Your task to perform on an android device: turn vacation reply on in the gmail app Image 0: 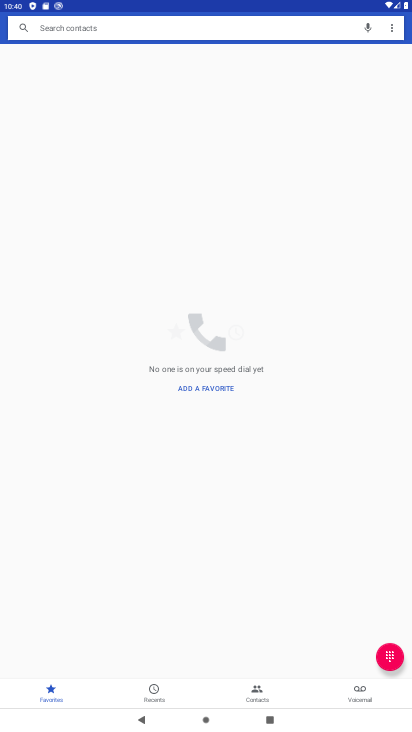
Step 0: drag from (250, 602) to (197, 107)
Your task to perform on an android device: turn vacation reply on in the gmail app Image 1: 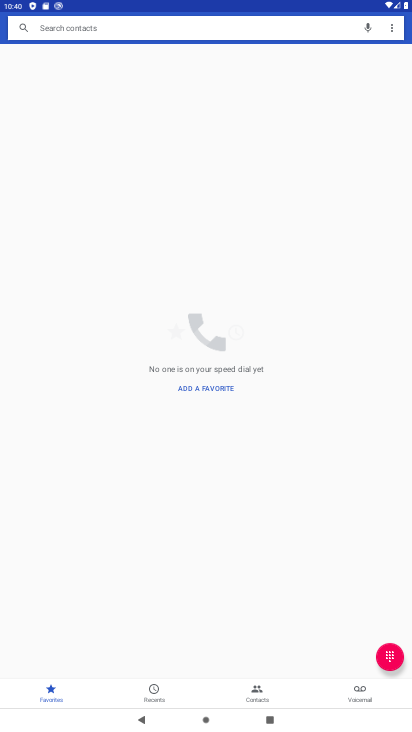
Step 1: press home button
Your task to perform on an android device: turn vacation reply on in the gmail app Image 2: 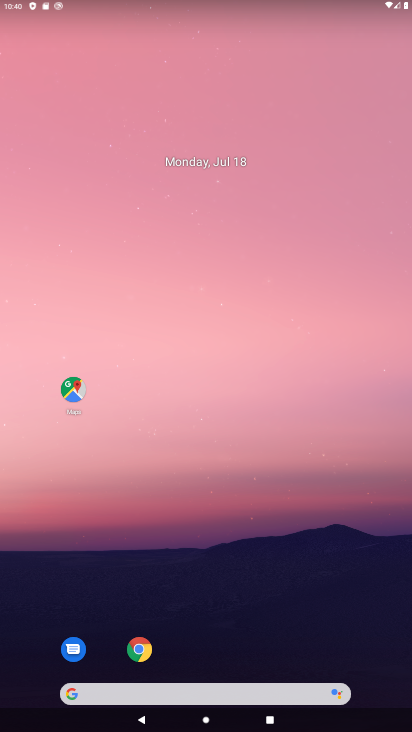
Step 2: drag from (268, 572) to (116, 33)
Your task to perform on an android device: turn vacation reply on in the gmail app Image 3: 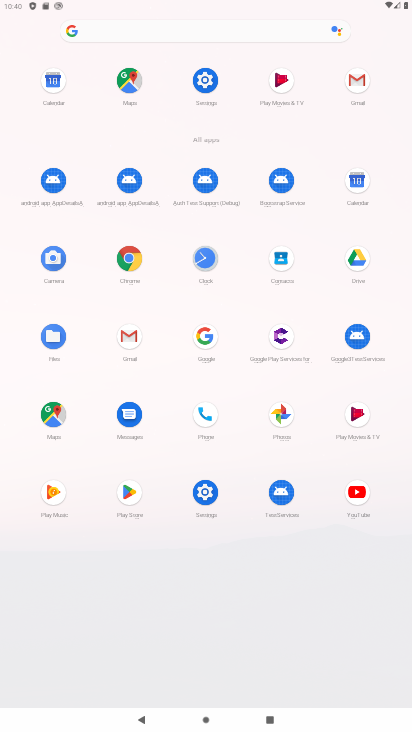
Step 3: click (353, 79)
Your task to perform on an android device: turn vacation reply on in the gmail app Image 4: 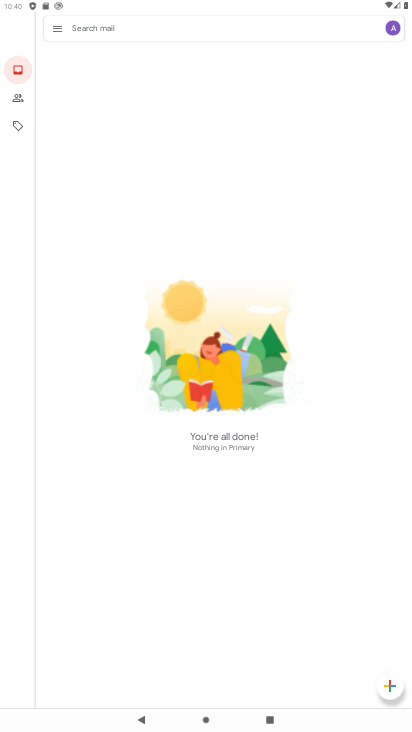
Step 4: click (58, 25)
Your task to perform on an android device: turn vacation reply on in the gmail app Image 5: 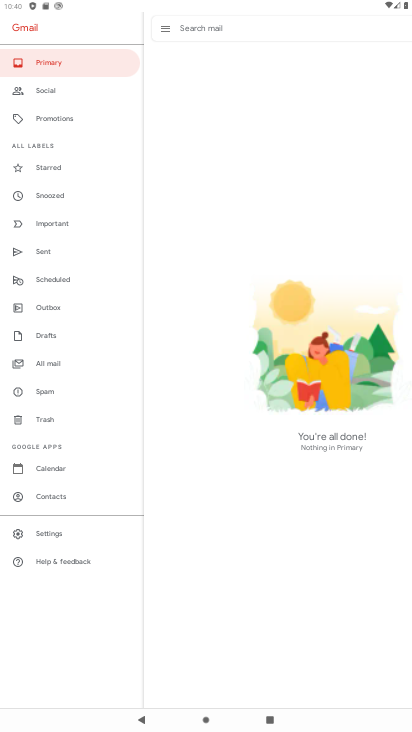
Step 5: click (52, 530)
Your task to perform on an android device: turn vacation reply on in the gmail app Image 6: 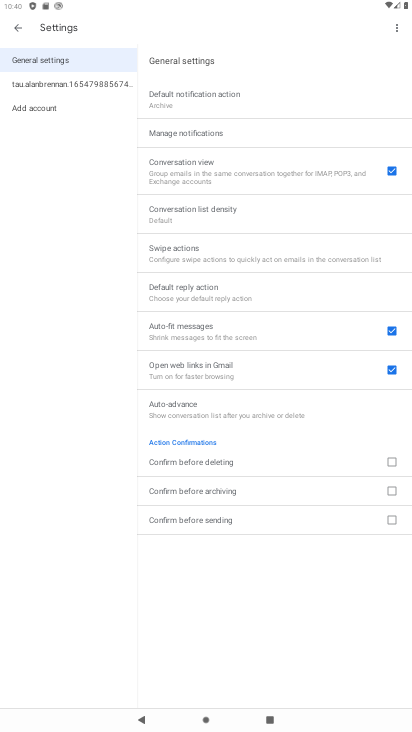
Step 6: click (51, 77)
Your task to perform on an android device: turn vacation reply on in the gmail app Image 7: 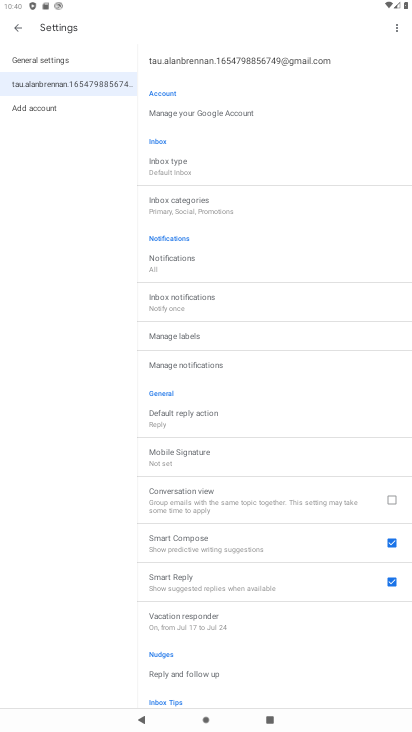
Step 7: click (191, 620)
Your task to perform on an android device: turn vacation reply on in the gmail app Image 8: 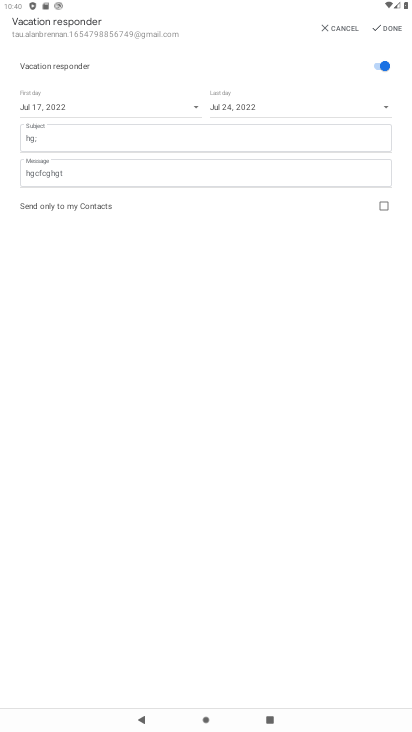
Step 8: task complete